Your task to perform on an android device: Go to eBay Image 0: 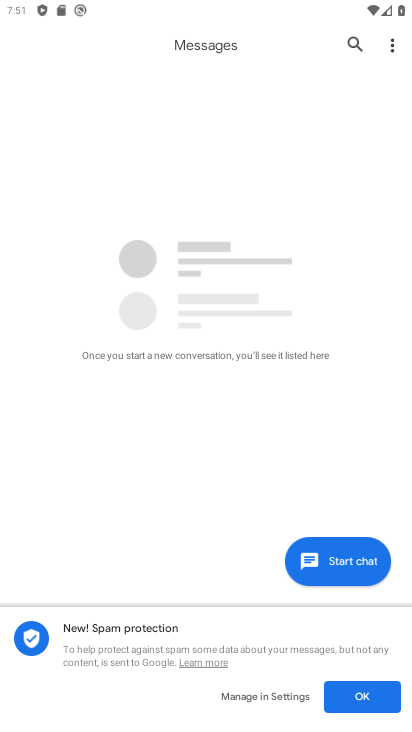
Step 0: press home button
Your task to perform on an android device: Go to eBay Image 1: 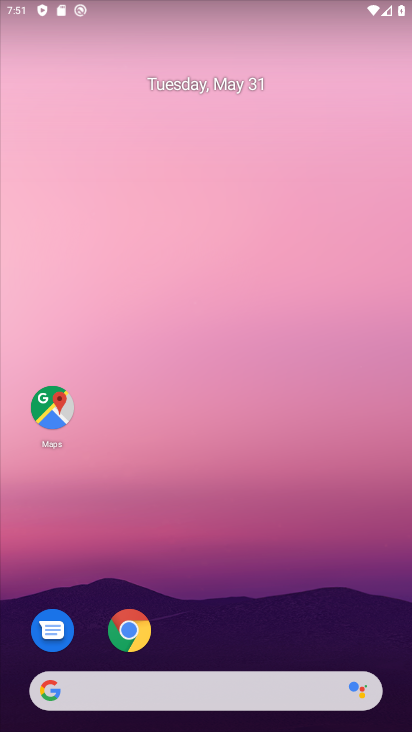
Step 1: click (131, 641)
Your task to perform on an android device: Go to eBay Image 2: 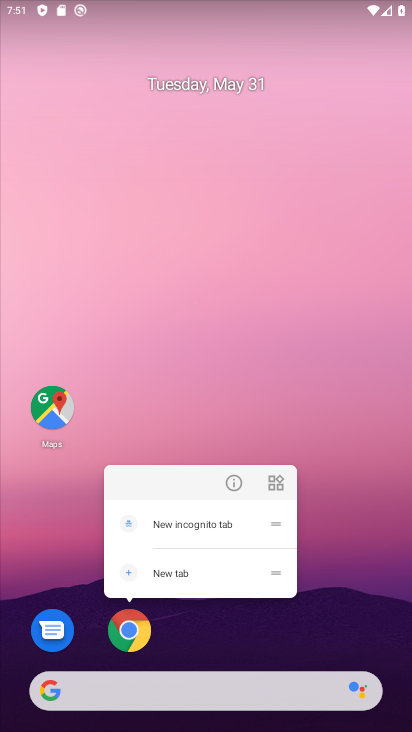
Step 2: click (136, 621)
Your task to perform on an android device: Go to eBay Image 3: 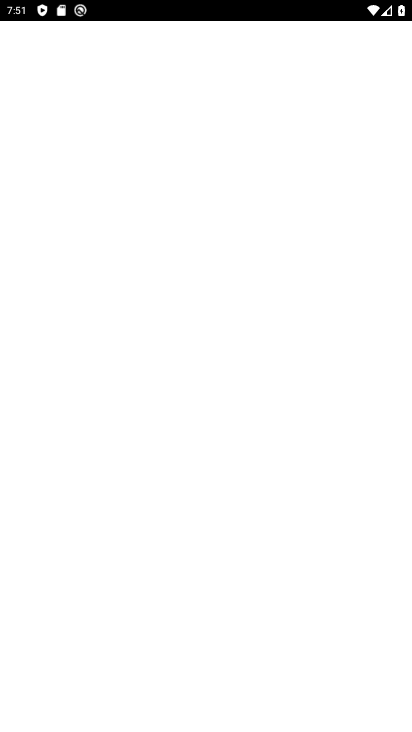
Step 3: click (122, 626)
Your task to perform on an android device: Go to eBay Image 4: 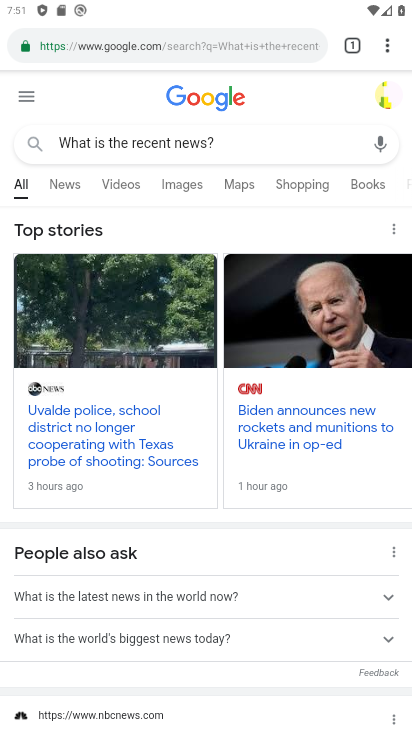
Step 4: click (340, 142)
Your task to perform on an android device: Go to eBay Image 5: 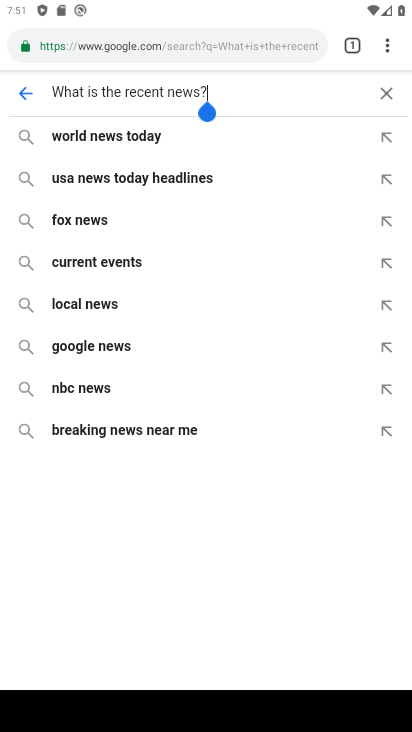
Step 5: click (389, 45)
Your task to perform on an android device: Go to eBay Image 6: 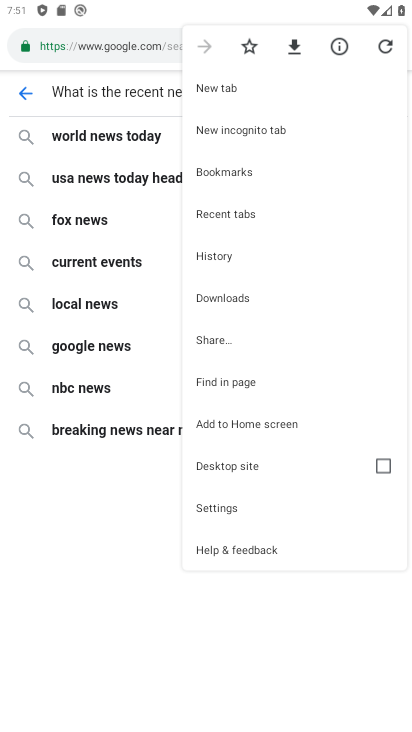
Step 6: click (262, 86)
Your task to perform on an android device: Go to eBay Image 7: 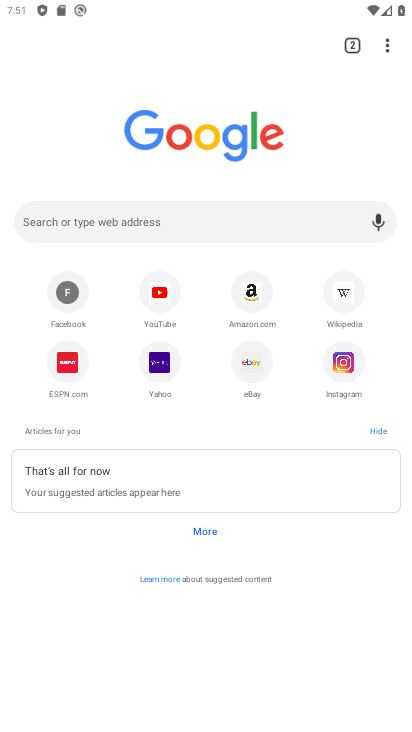
Step 7: click (238, 339)
Your task to perform on an android device: Go to eBay Image 8: 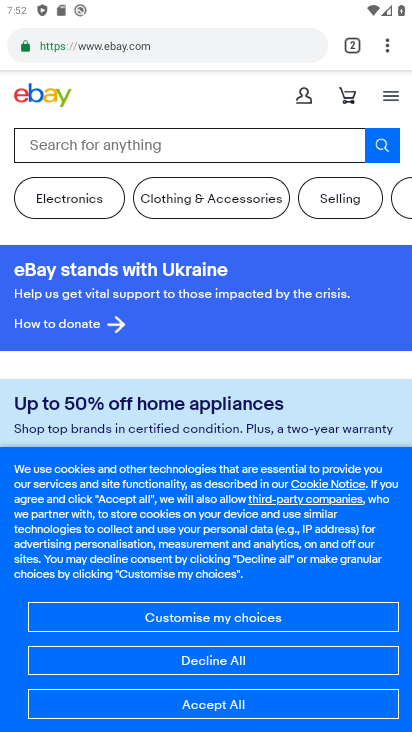
Step 8: task complete